Your task to perform on an android device: uninstall "Move to iOS" Image 0: 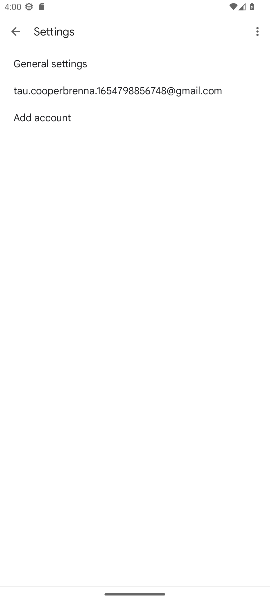
Step 0: press home button
Your task to perform on an android device: uninstall "Move to iOS" Image 1: 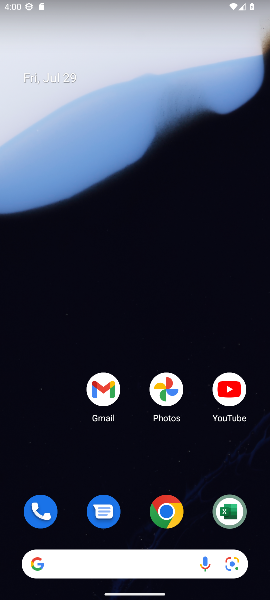
Step 1: drag from (79, 286) to (139, 115)
Your task to perform on an android device: uninstall "Move to iOS" Image 2: 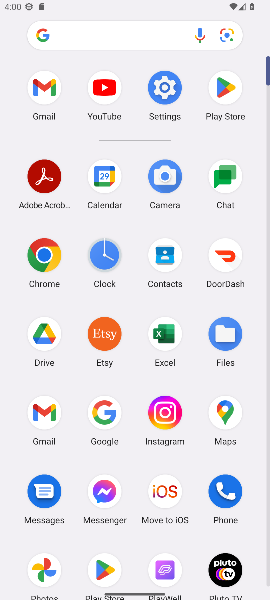
Step 2: click (89, 571)
Your task to perform on an android device: uninstall "Move to iOS" Image 3: 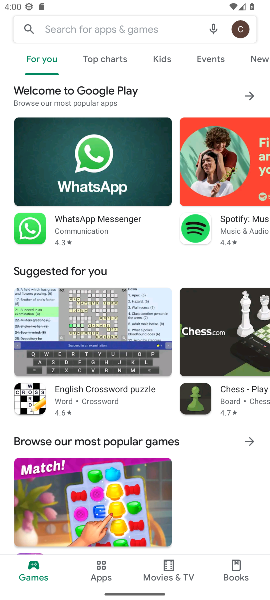
Step 3: click (64, 27)
Your task to perform on an android device: uninstall "Move to iOS" Image 4: 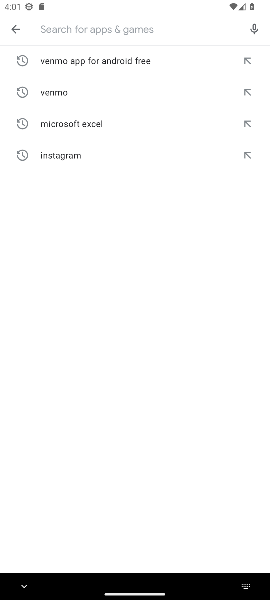
Step 4: type "Move to iOS"
Your task to perform on an android device: uninstall "Move to iOS" Image 5: 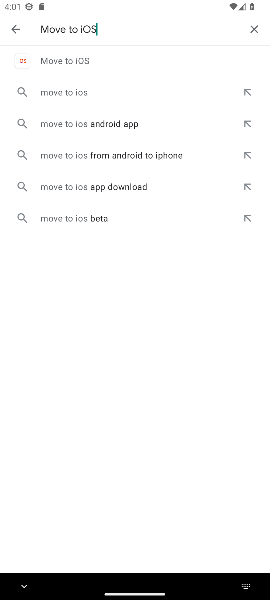
Step 5: type ""
Your task to perform on an android device: uninstall "Move to iOS" Image 6: 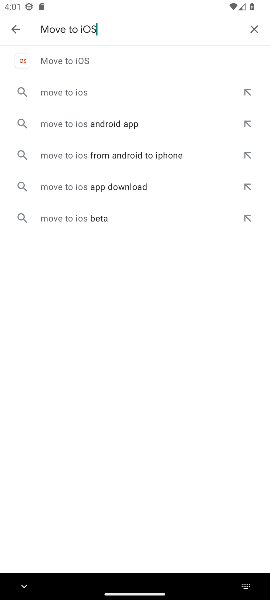
Step 6: click (72, 61)
Your task to perform on an android device: uninstall "Move to iOS" Image 7: 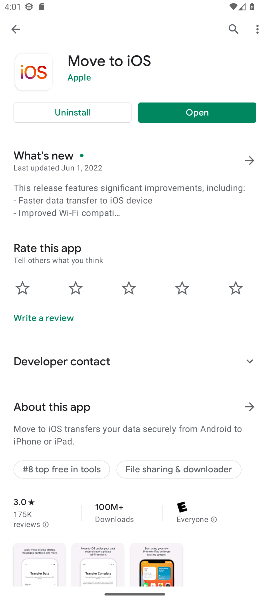
Step 7: click (79, 107)
Your task to perform on an android device: uninstall "Move to iOS" Image 8: 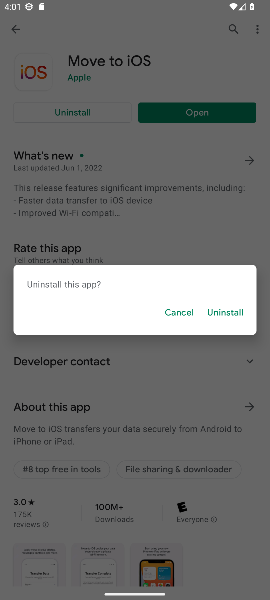
Step 8: click (212, 313)
Your task to perform on an android device: uninstall "Move to iOS" Image 9: 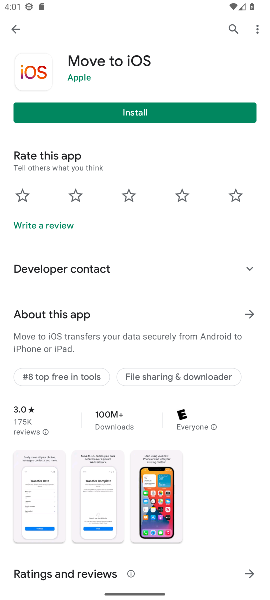
Step 9: task complete